Your task to perform on an android device: Open the phone app and click the voicemail tab. Image 0: 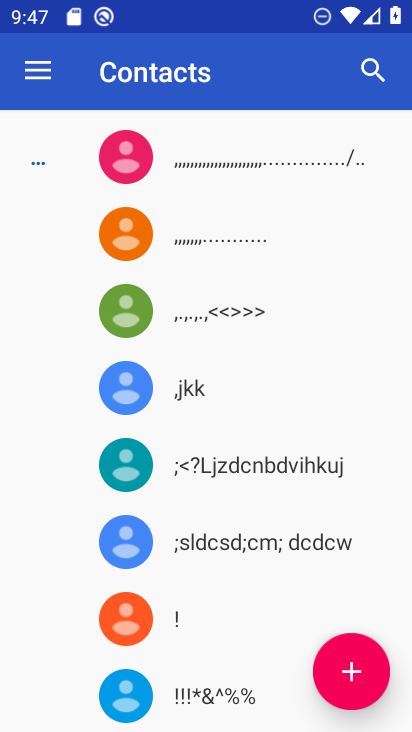
Step 0: press home button
Your task to perform on an android device: Open the phone app and click the voicemail tab. Image 1: 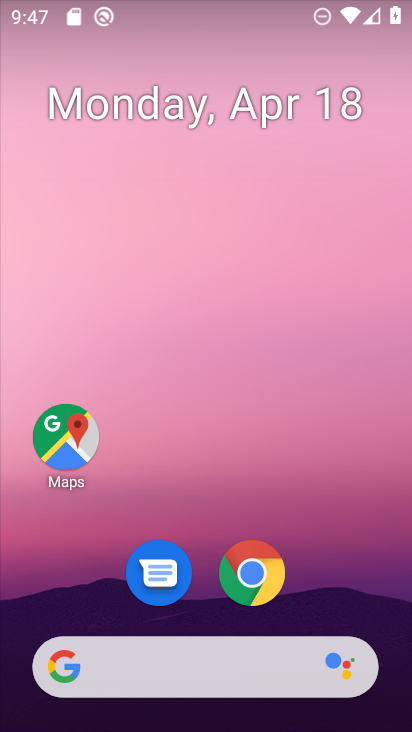
Step 1: drag from (328, 401) to (219, 18)
Your task to perform on an android device: Open the phone app and click the voicemail tab. Image 2: 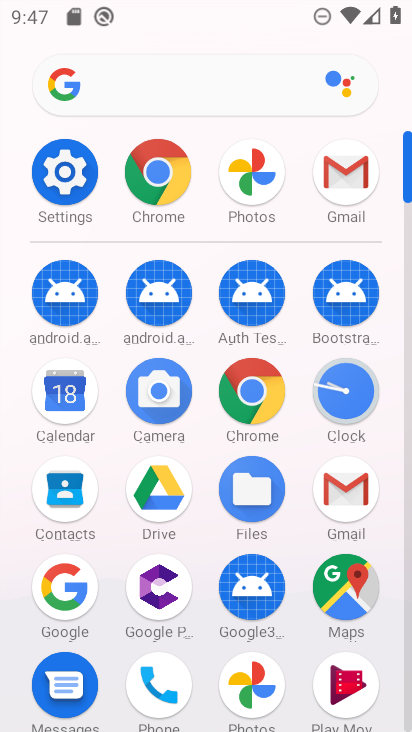
Step 2: click (152, 676)
Your task to perform on an android device: Open the phone app and click the voicemail tab. Image 3: 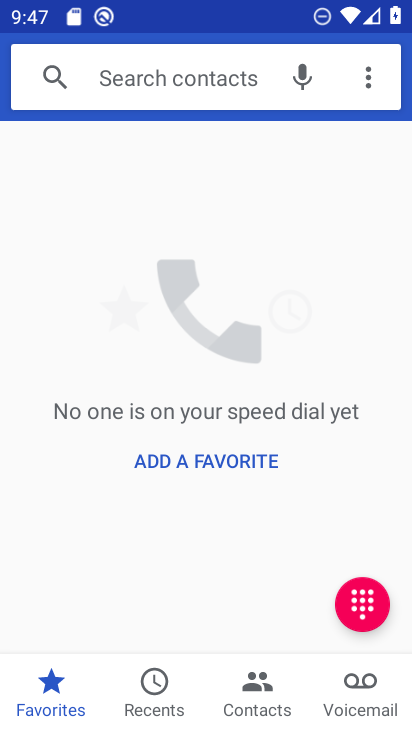
Step 3: click (352, 694)
Your task to perform on an android device: Open the phone app and click the voicemail tab. Image 4: 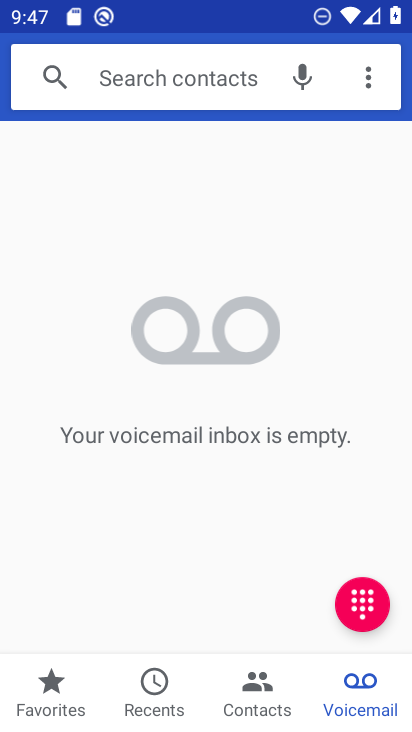
Step 4: task complete